Your task to perform on an android device: all mails in gmail Image 0: 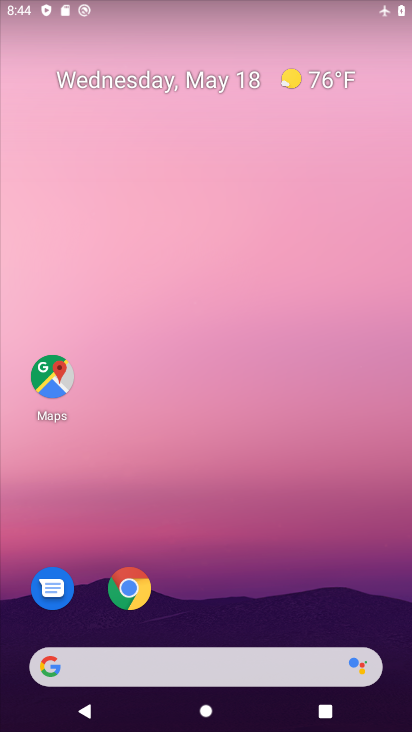
Step 0: drag from (301, 586) to (249, 2)
Your task to perform on an android device: all mails in gmail Image 1: 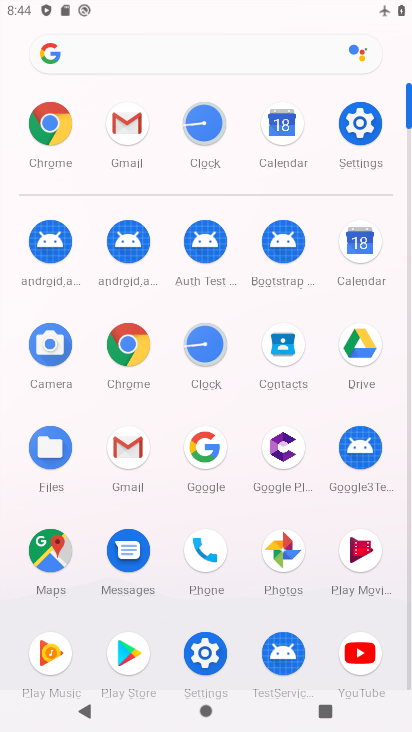
Step 1: click (121, 457)
Your task to perform on an android device: all mails in gmail Image 2: 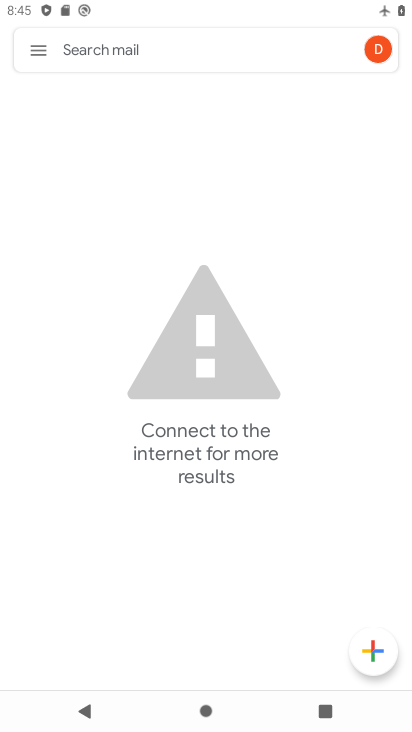
Step 2: task complete